Your task to perform on an android device: Go to network settings Image 0: 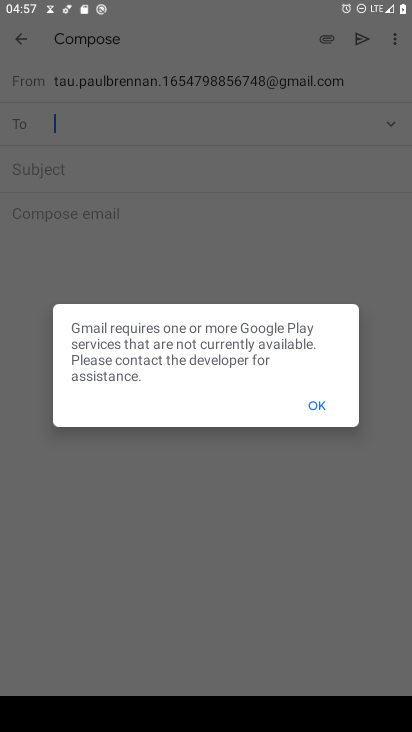
Step 0: press home button
Your task to perform on an android device: Go to network settings Image 1: 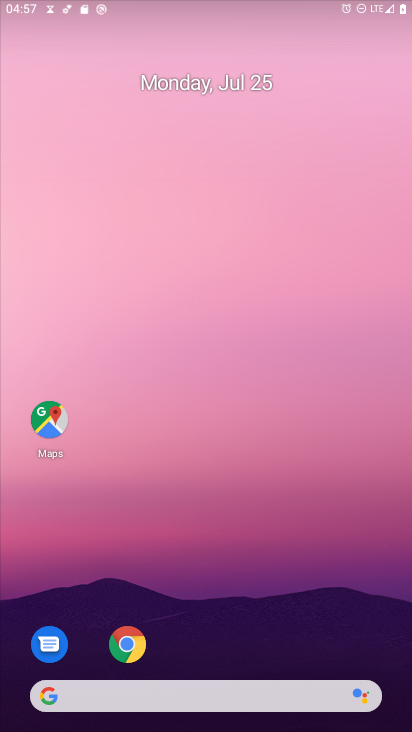
Step 1: drag from (307, 600) to (280, 122)
Your task to perform on an android device: Go to network settings Image 2: 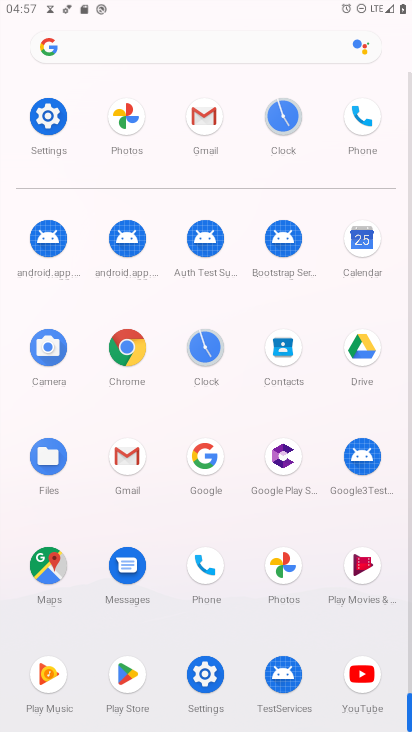
Step 2: click (56, 119)
Your task to perform on an android device: Go to network settings Image 3: 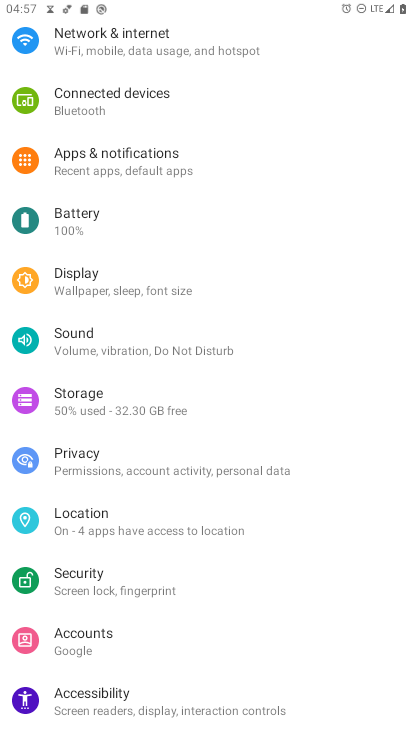
Step 3: click (89, 40)
Your task to perform on an android device: Go to network settings Image 4: 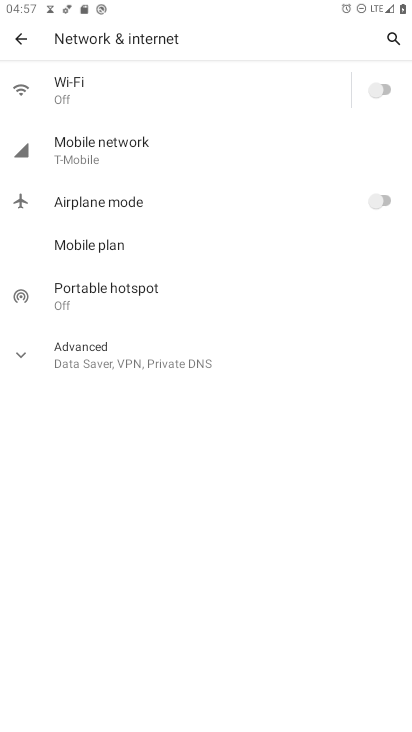
Step 4: click (102, 144)
Your task to perform on an android device: Go to network settings Image 5: 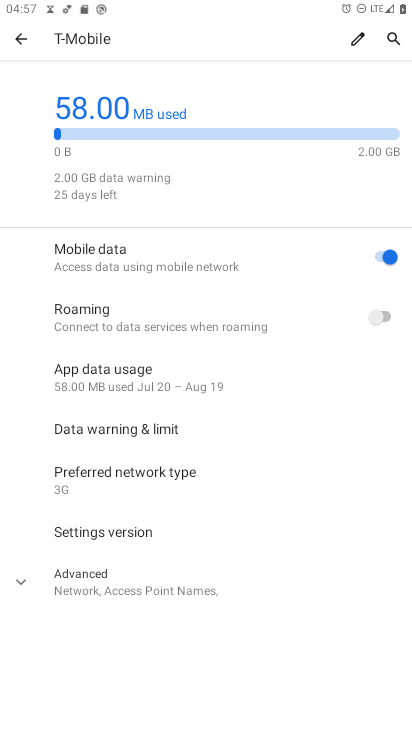
Step 5: task complete